Your task to perform on an android device: What's the weather today? Image 0: 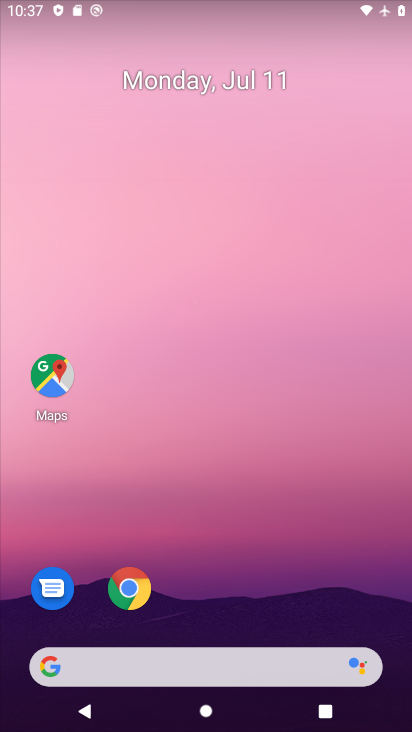
Step 0: click (171, 663)
Your task to perform on an android device: What's the weather today? Image 1: 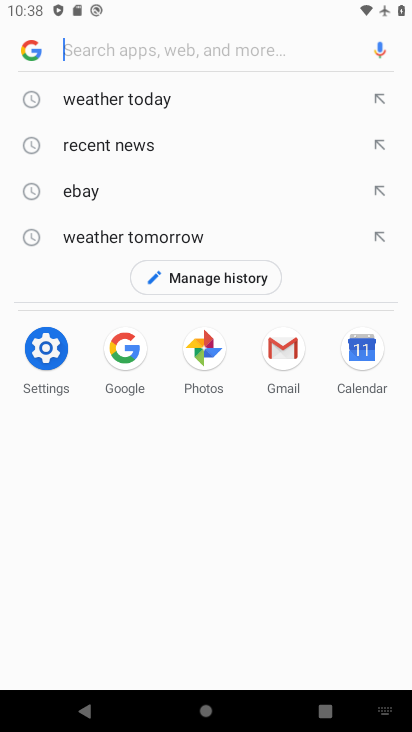
Step 1: click (133, 98)
Your task to perform on an android device: What's the weather today? Image 2: 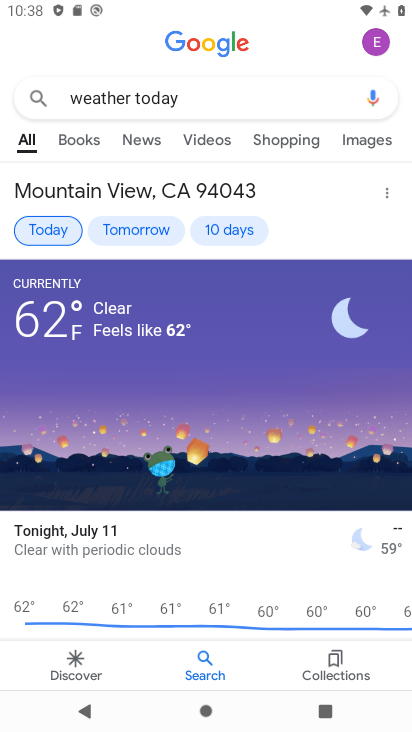
Step 2: task complete